Your task to perform on an android device: Go to ESPN.com Image 0: 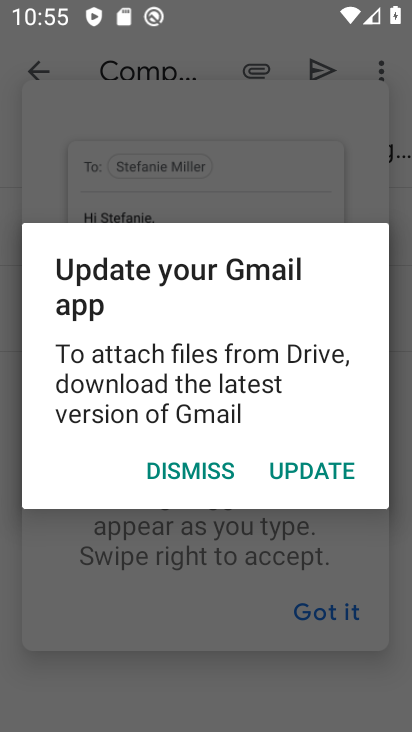
Step 0: press home button
Your task to perform on an android device: Go to ESPN.com Image 1: 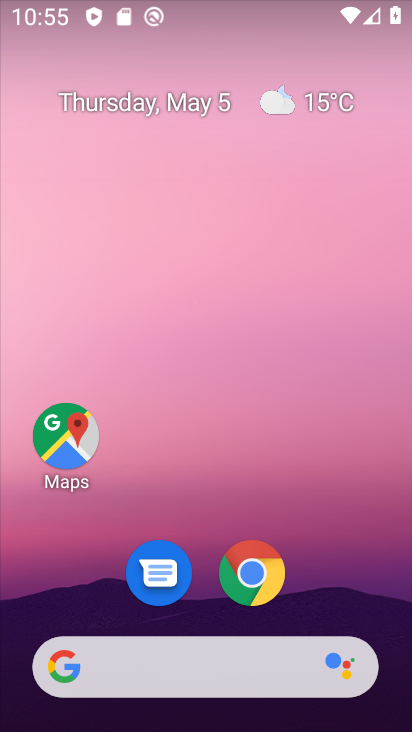
Step 1: click (257, 591)
Your task to perform on an android device: Go to ESPN.com Image 2: 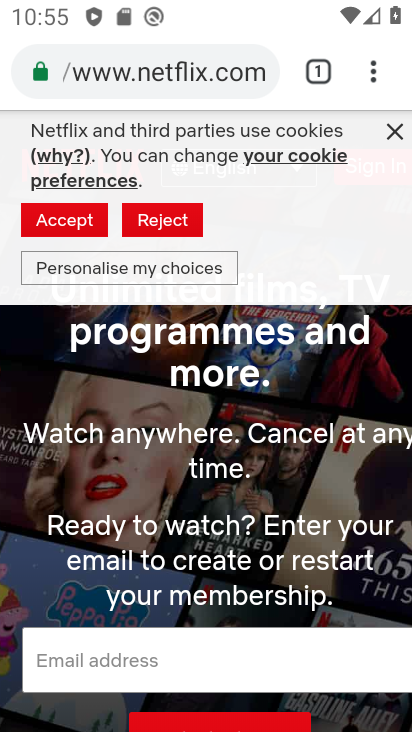
Step 2: click (318, 79)
Your task to perform on an android device: Go to ESPN.com Image 3: 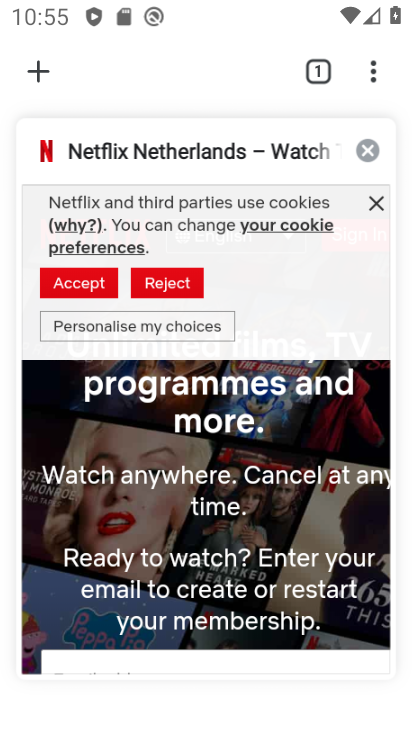
Step 3: click (368, 148)
Your task to perform on an android device: Go to ESPN.com Image 4: 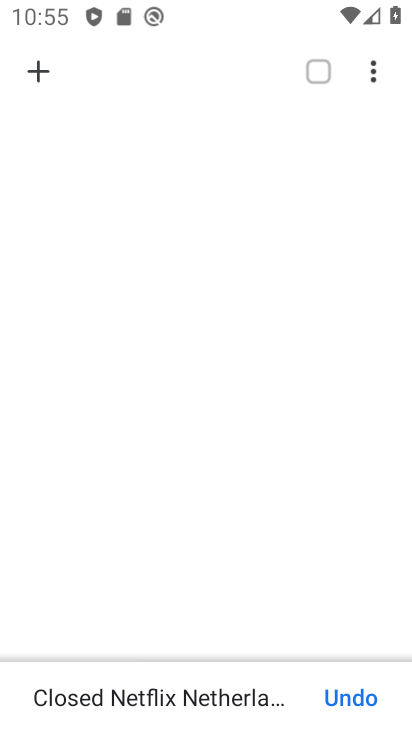
Step 4: click (33, 68)
Your task to perform on an android device: Go to ESPN.com Image 5: 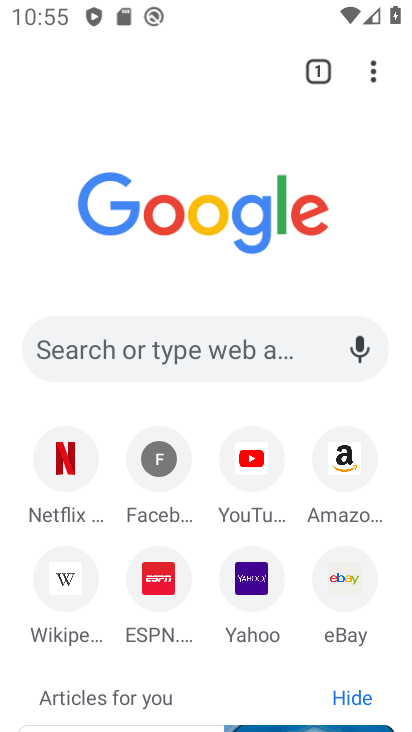
Step 5: click (146, 589)
Your task to perform on an android device: Go to ESPN.com Image 6: 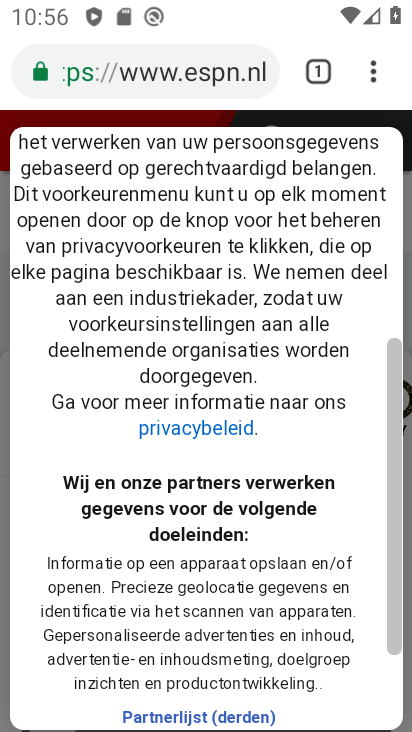
Step 6: drag from (247, 661) to (334, 234)
Your task to perform on an android device: Go to ESPN.com Image 7: 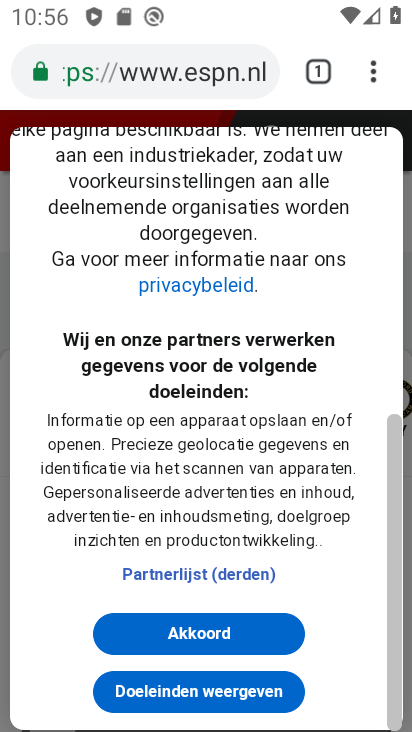
Step 7: click (234, 630)
Your task to perform on an android device: Go to ESPN.com Image 8: 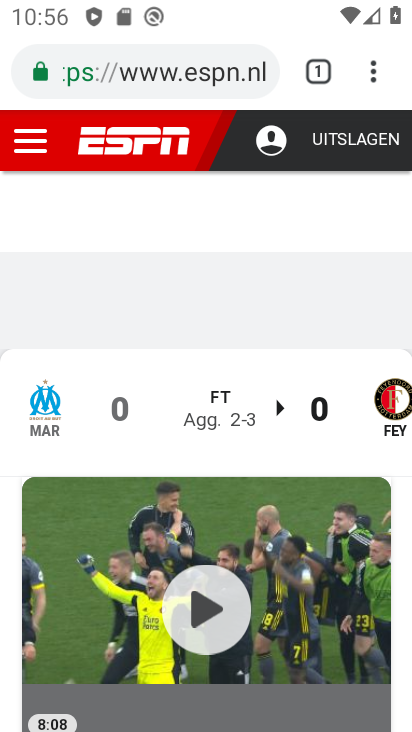
Step 8: task complete